Your task to perform on an android device: check data usage Image 0: 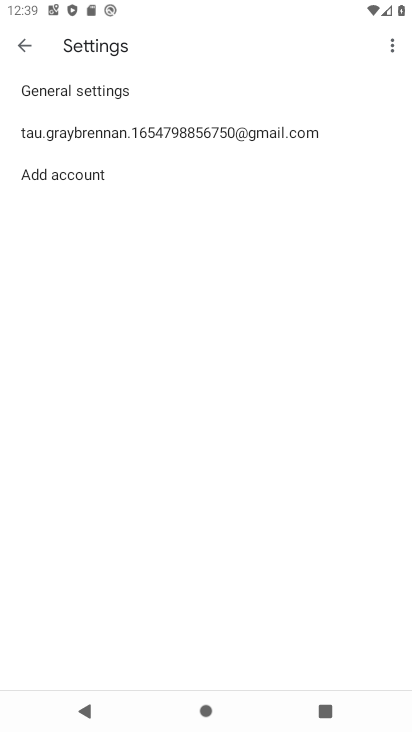
Step 0: press home button
Your task to perform on an android device: check data usage Image 1: 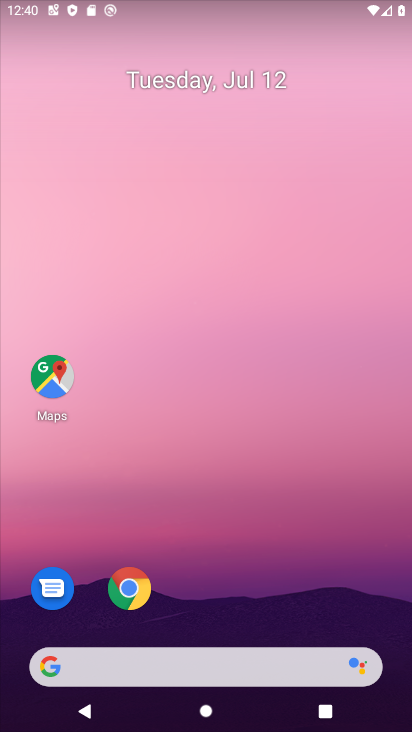
Step 1: drag from (298, 664) to (309, 219)
Your task to perform on an android device: check data usage Image 2: 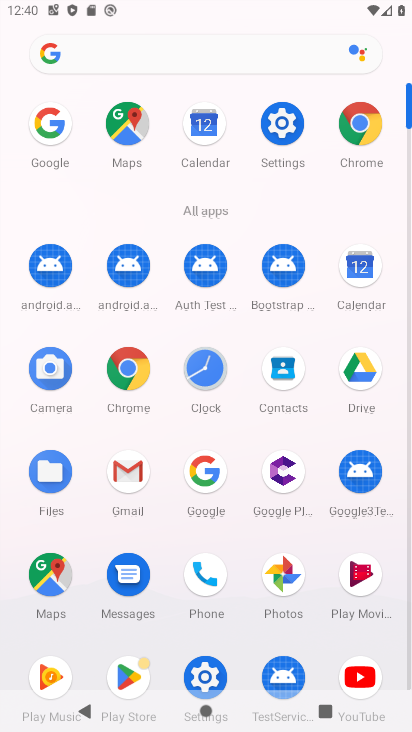
Step 2: click (267, 129)
Your task to perform on an android device: check data usage Image 3: 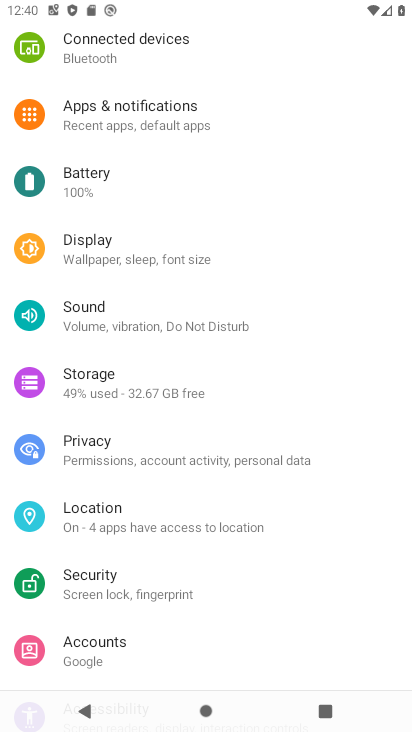
Step 3: drag from (161, 62) to (234, 395)
Your task to perform on an android device: check data usage Image 4: 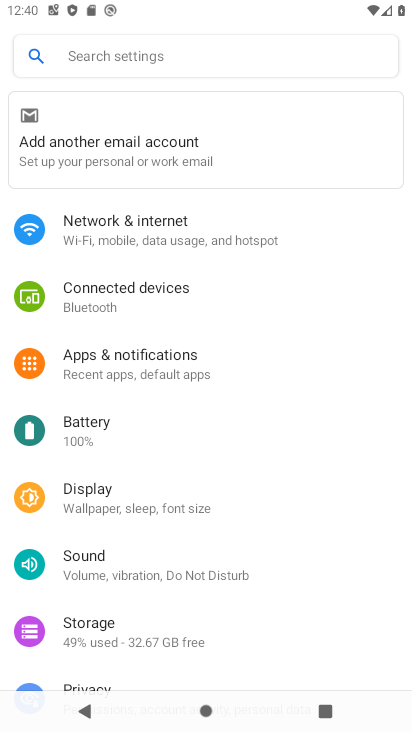
Step 4: click (132, 231)
Your task to perform on an android device: check data usage Image 5: 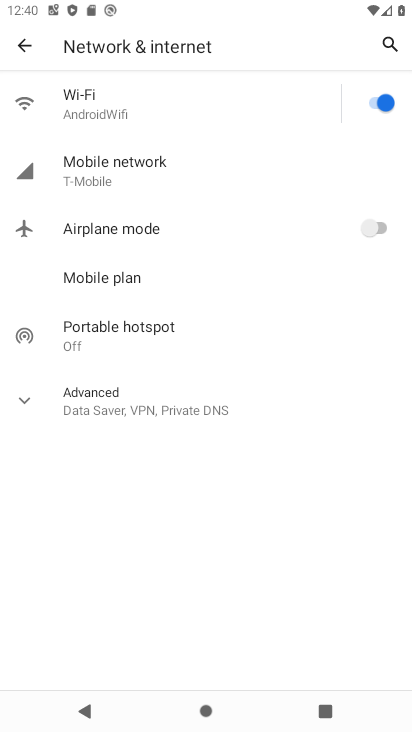
Step 5: click (122, 166)
Your task to perform on an android device: check data usage Image 6: 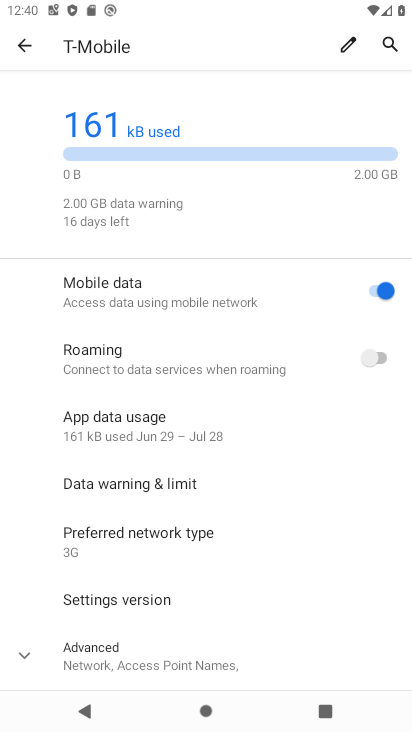
Step 6: task complete